Your task to perform on an android device: Open eBay Image 0: 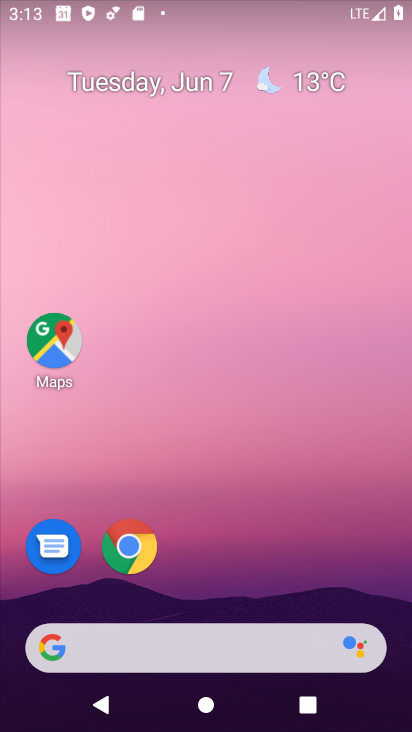
Step 0: click (130, 541)
Your task to perform on an android device: Open eBay Image 1: 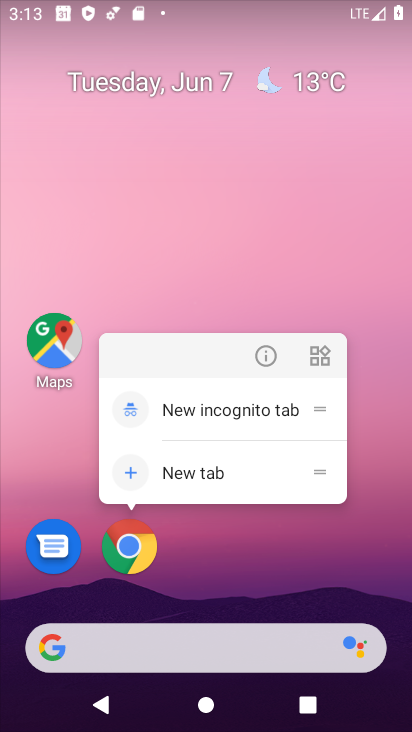
Step 1: click (261, 354)
Your task to perform on an android device: Open eBay Image 2: 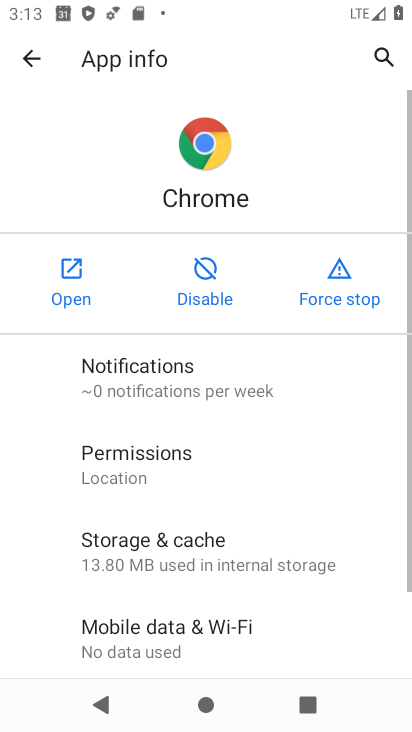
Step 2: click (65, 277)
Your task to perform on an android device: Open eBay Image 3: 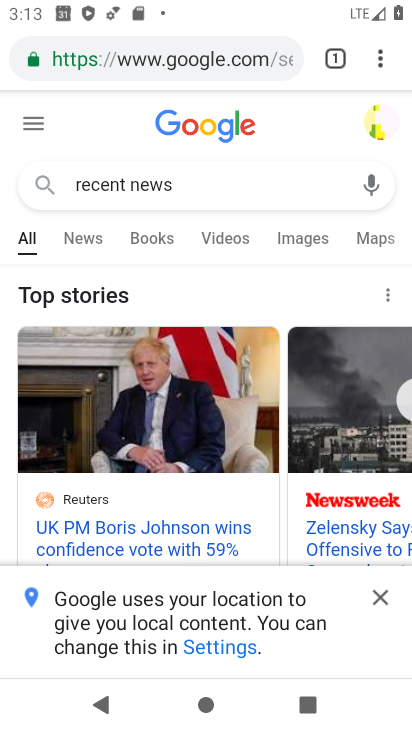
Step 3: click (116, 74)
Your task to perform on an android device: Open eBay Image 4: 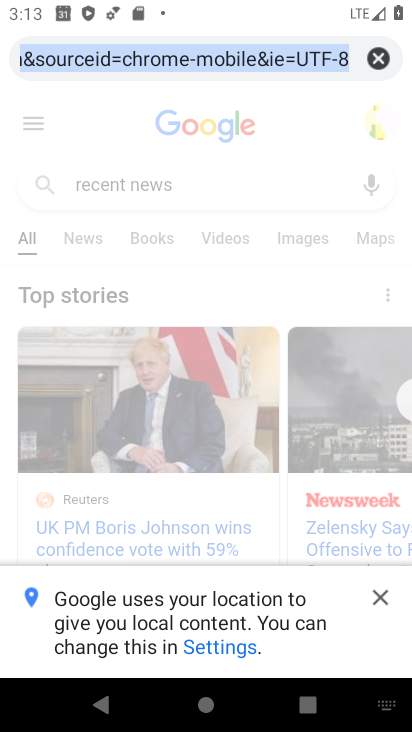
Step 4: type "eBay"
Your task to perform on an android device: Open eBay Image 5: 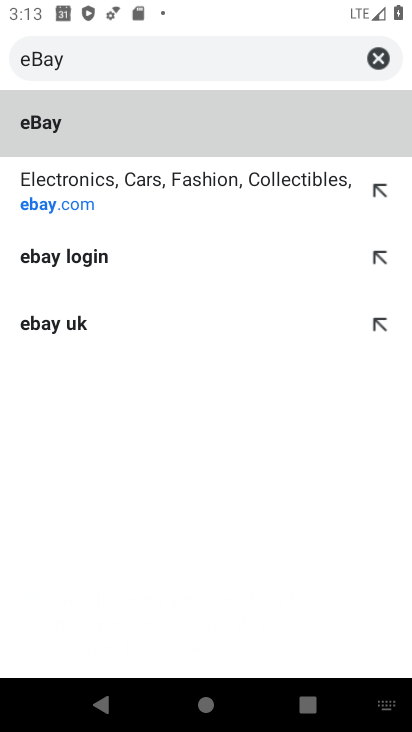
Step 5: click (180, 113)
Your task to perform on an android device: Open eBay Image 6: 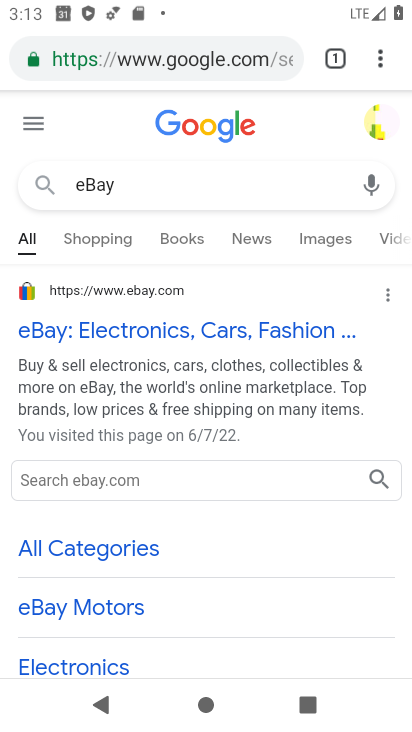
Step 6: task complete